Your task to perform on an android device: Clear the shopping cart on walmart. Search for sony triple a on walmart, select the first entry, and add it to the cart. Image 0: 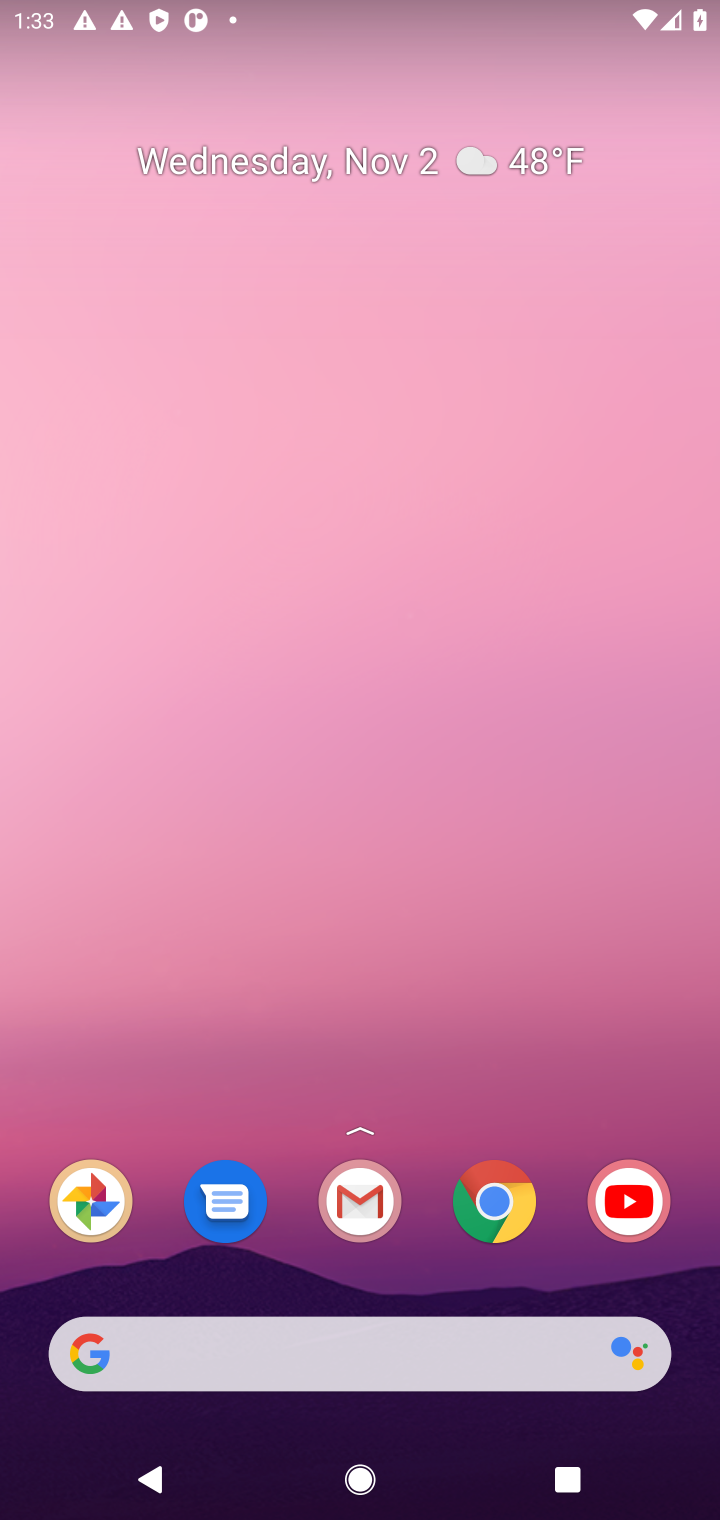
Step 0: click (477, 1201)
Your task to perform on an android device: Clear the shopping cart on walmart. Search for sony triple a on walmart, select the first entry, and add it to the cart. Image 1: 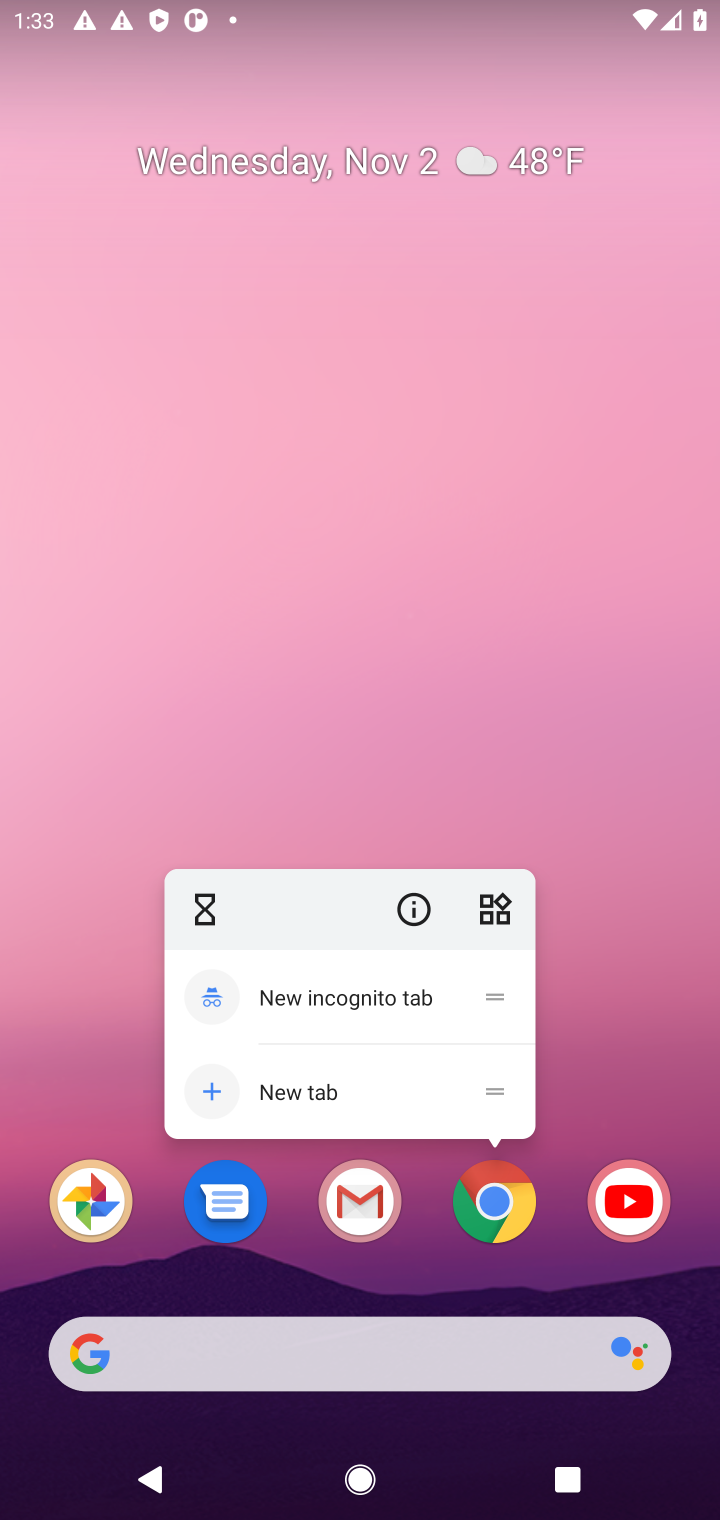
Step 1: click (477, 1201)
Your task to perform on an android device: Clear the shopping cart on walmart. Search for sony triple a on walmart, select the first entry, and add it to the cart. Image 2: 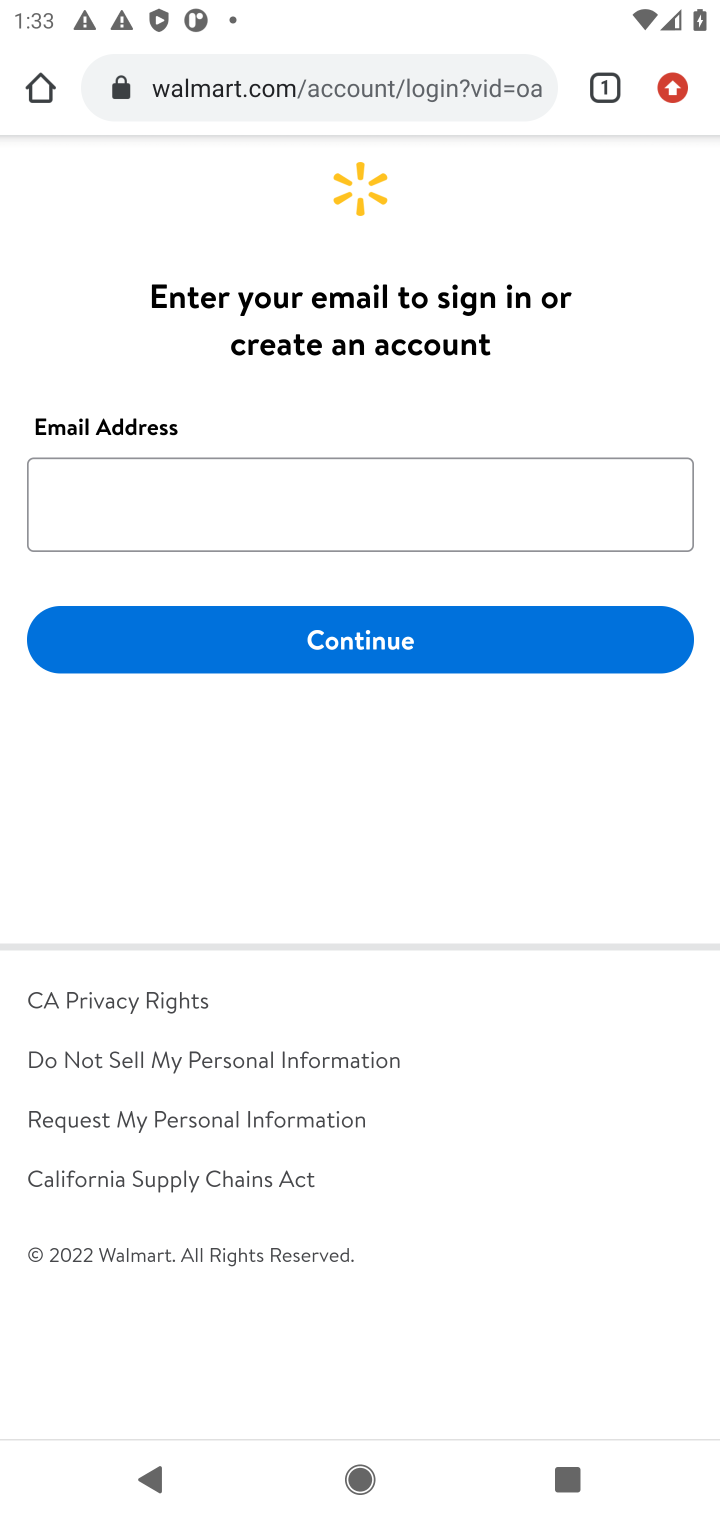
Step 2: press back button
Your task to perform on an android device: Clear the shopping cart on walmart. Search for sony triple a on walmart, select the first entry, and add it to the cart. Image 3: 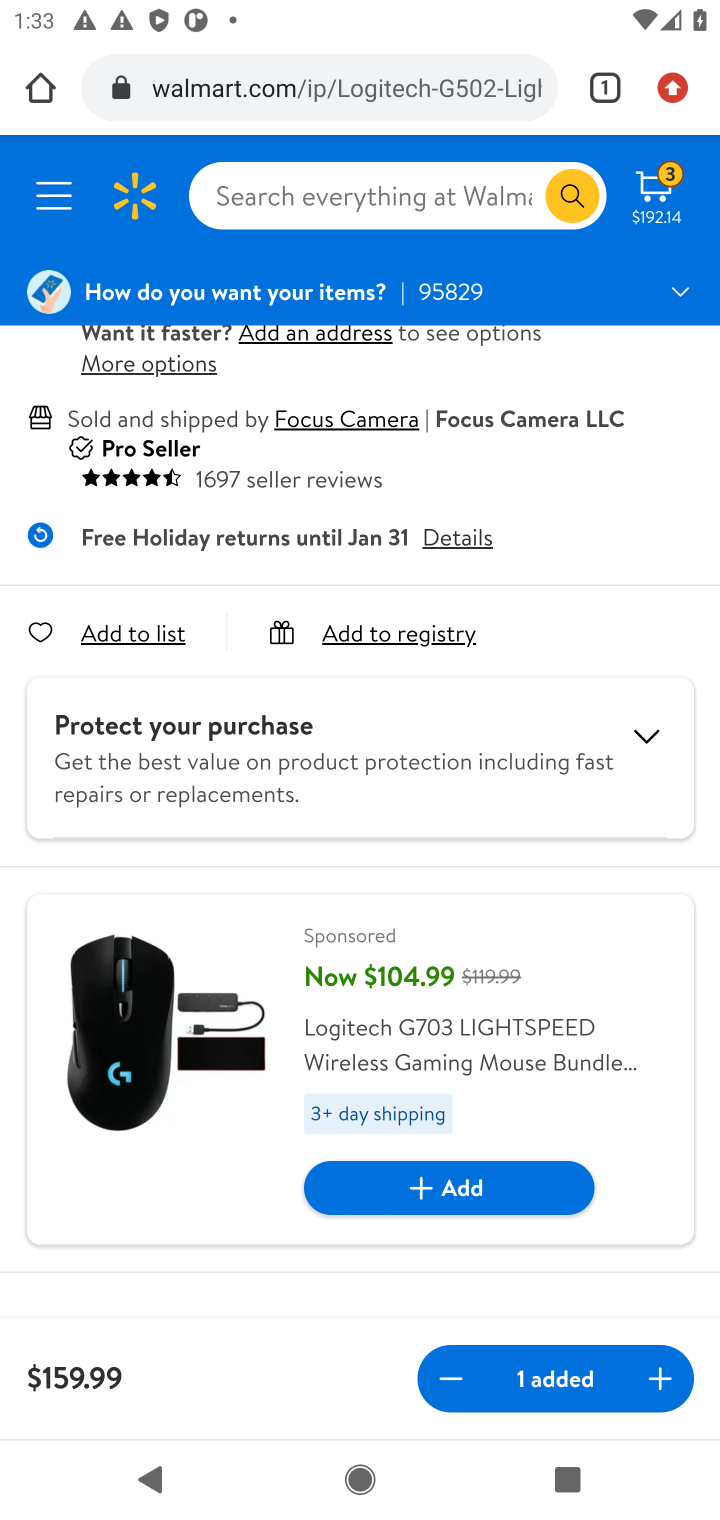
Step 3: click (646, 193)
Your task to perform on an android device: Clear the shopping cart on walmart. Search for sony triple a on walmart, select the first entry, and add it to the cart. Image 4: 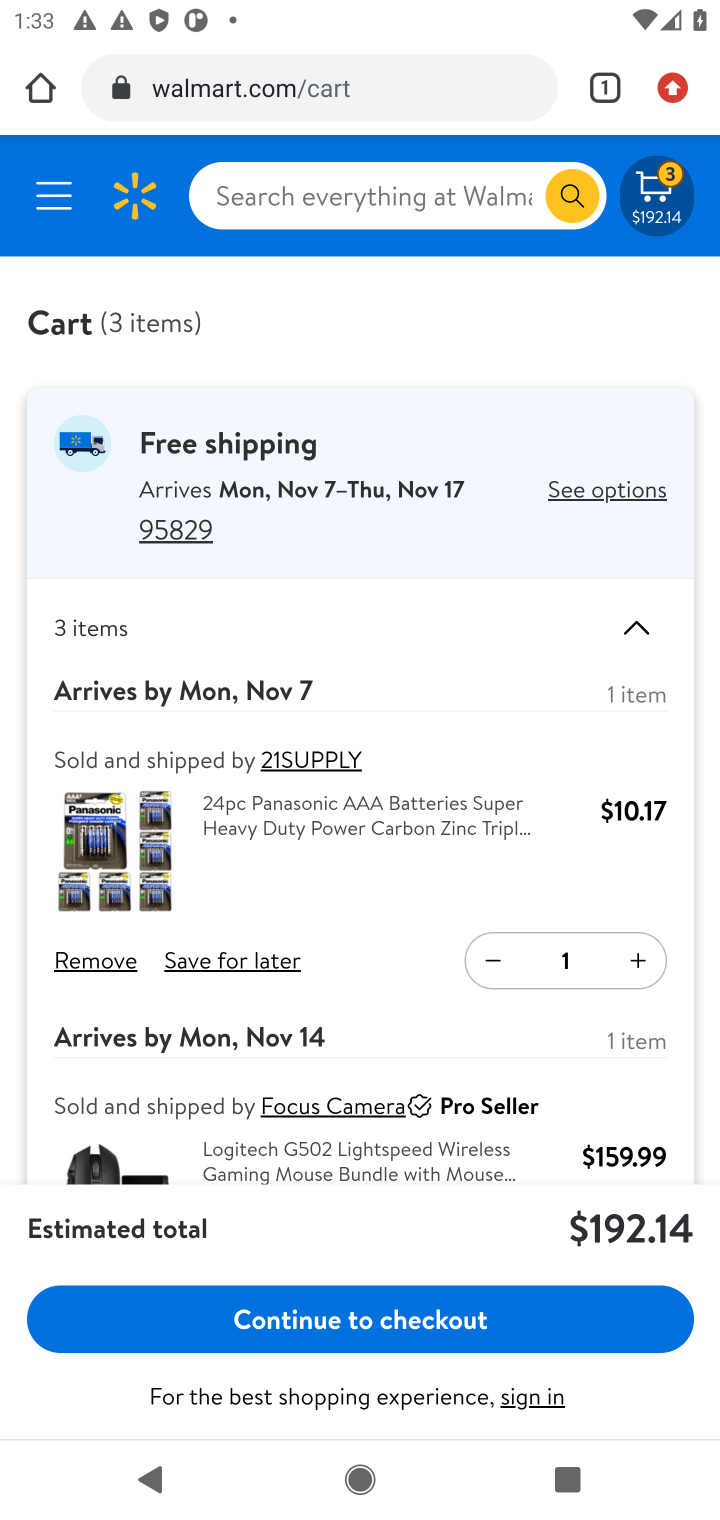
Step 4: click (98, 961)
Your task to perform on an android device: Clear the shopping cart on walmart. Search for sony triple a on walmart, select the first entry, and add it to the cart. Image 5: 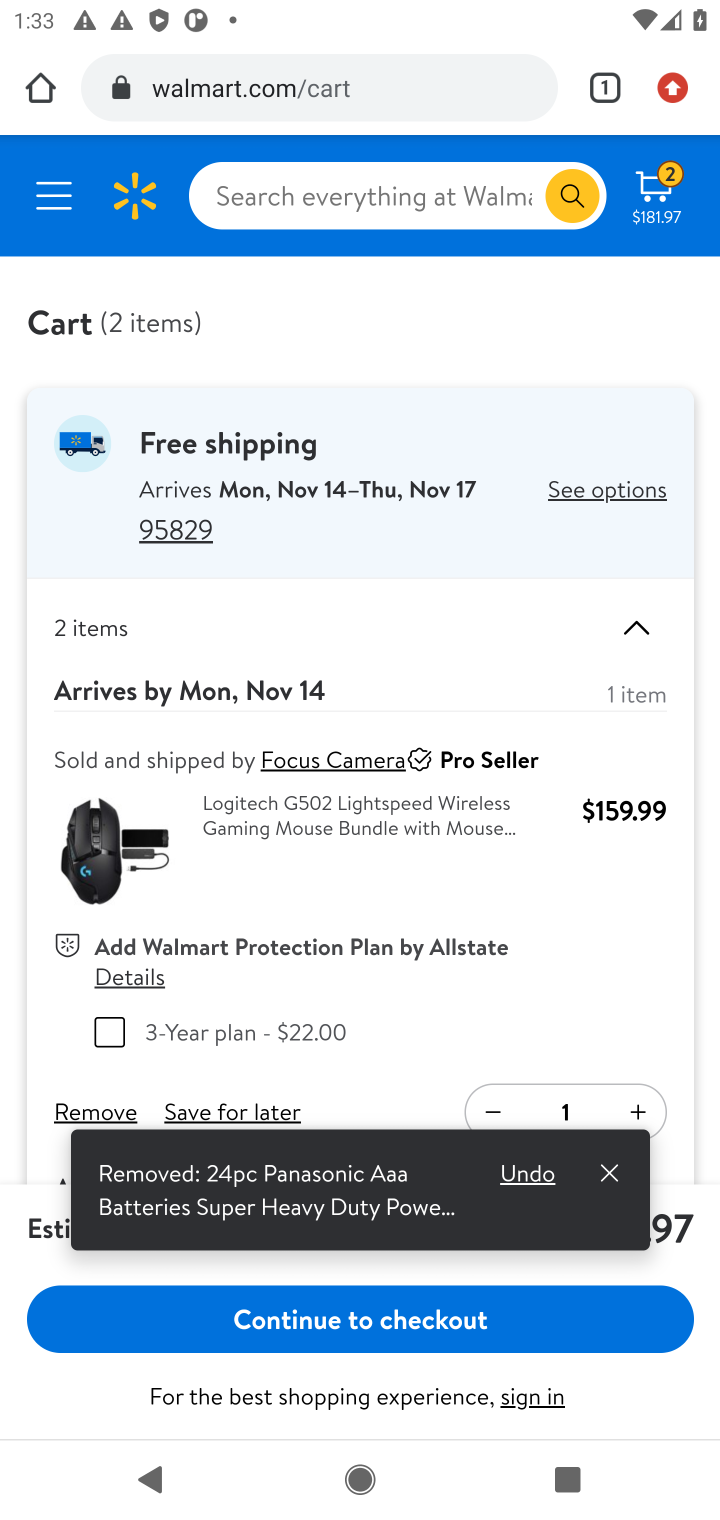
Step 5: click (92, 1113)
Your task to perform on an android device: Clear the shopping cart on walmart. Search for sony triple a on walmart, select the first entry, and add it to the cart. Image 6: 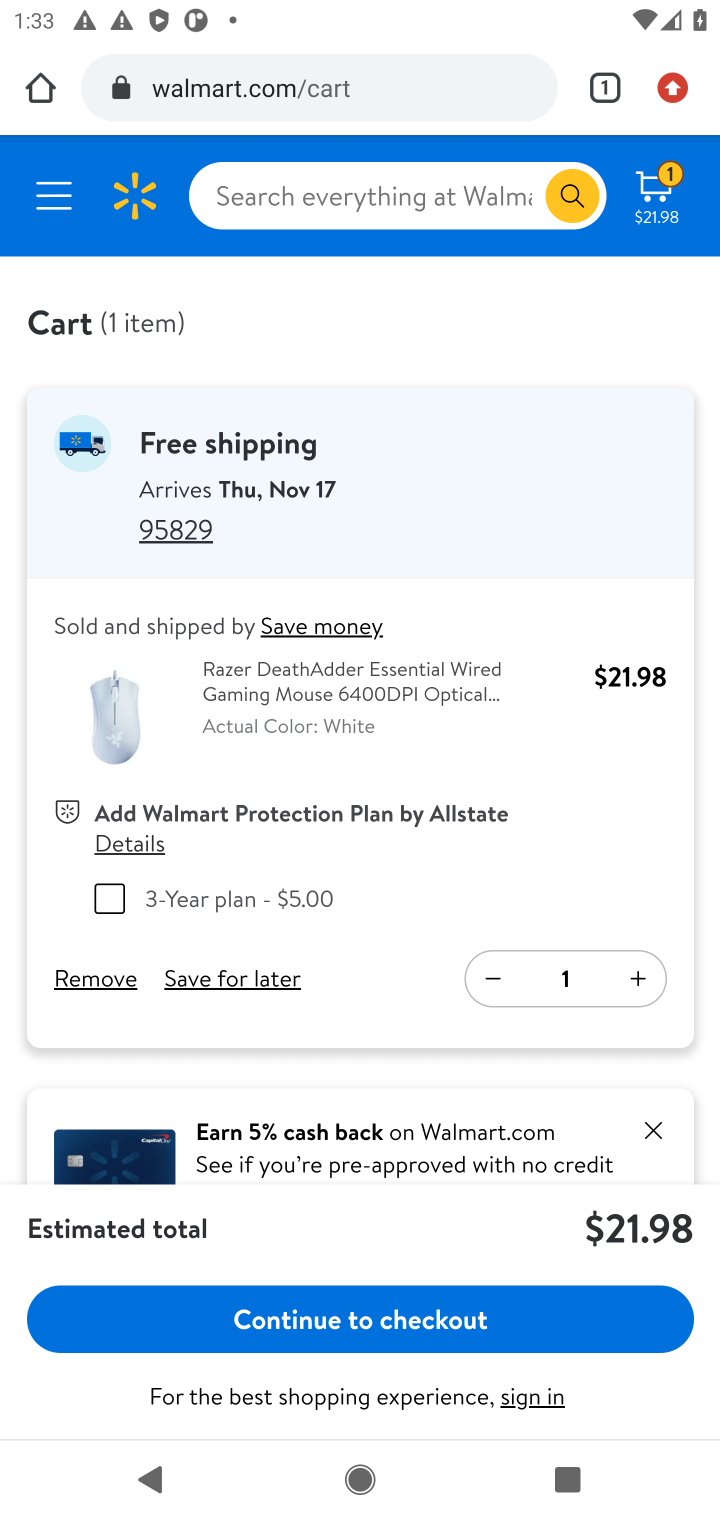
Step 6: click (92, 976)
Your task to perform on an android device: Clear the shopping cart on walmart. Search for sony triple a on walmart, select the first entry, and add it to the cart. Image 7: 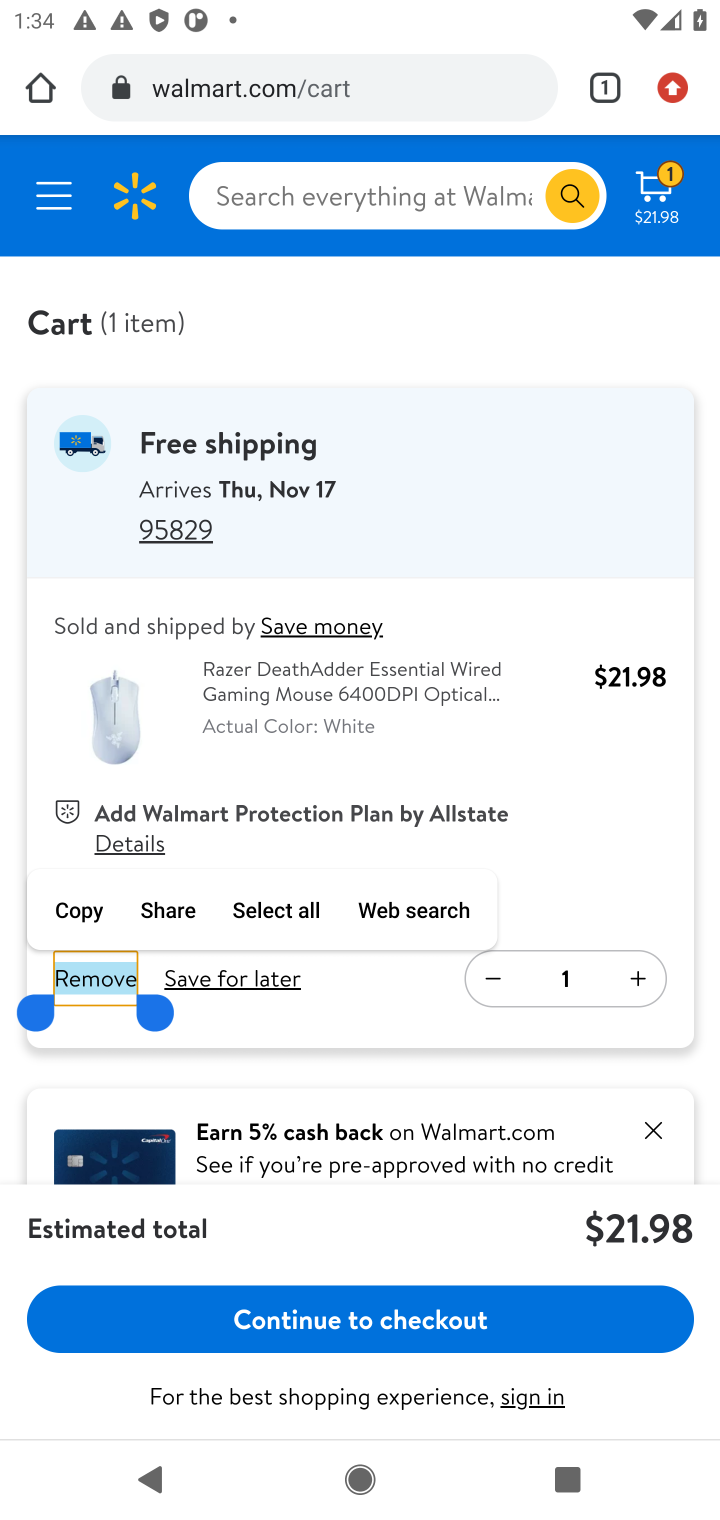
Step 7: click (480, 1052)
Your task to perform on an android device: Clear the shopping cart on walmart. Search for sony triple a on walmart, select the first entry, and add it to the cart. Image 8: 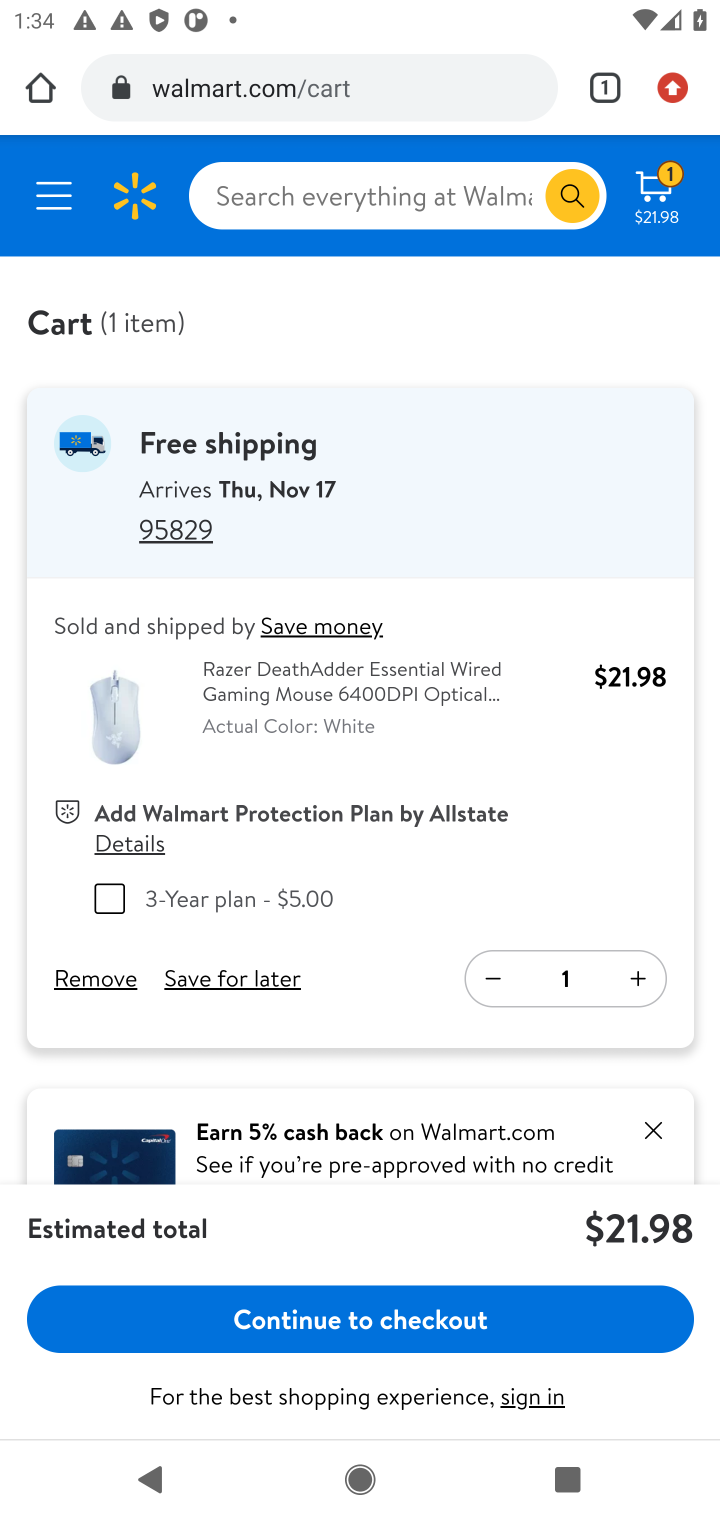
Step 8: click (646, 1124)
Your task to perform on an android device: Clear the shopping cart on walmart. Search for sony triple a on walmart, select the first entry, and add it to the cart. Image 9: 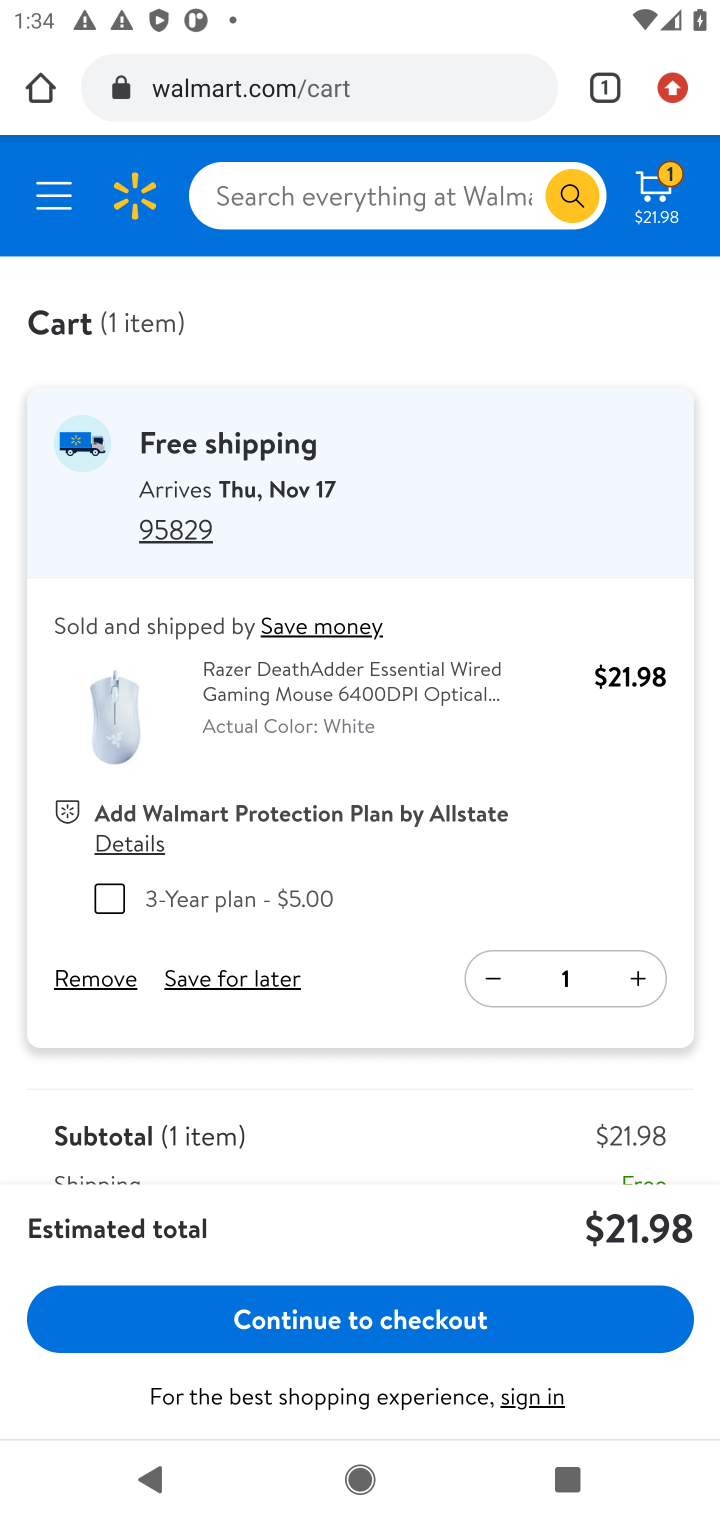
Step 9: click (73, 980)
Your task to perform on an android device: Clear the shopping cart on walmart. Search for sony triple a on walmart, select the first entry, and add it to the cart. Image 10: 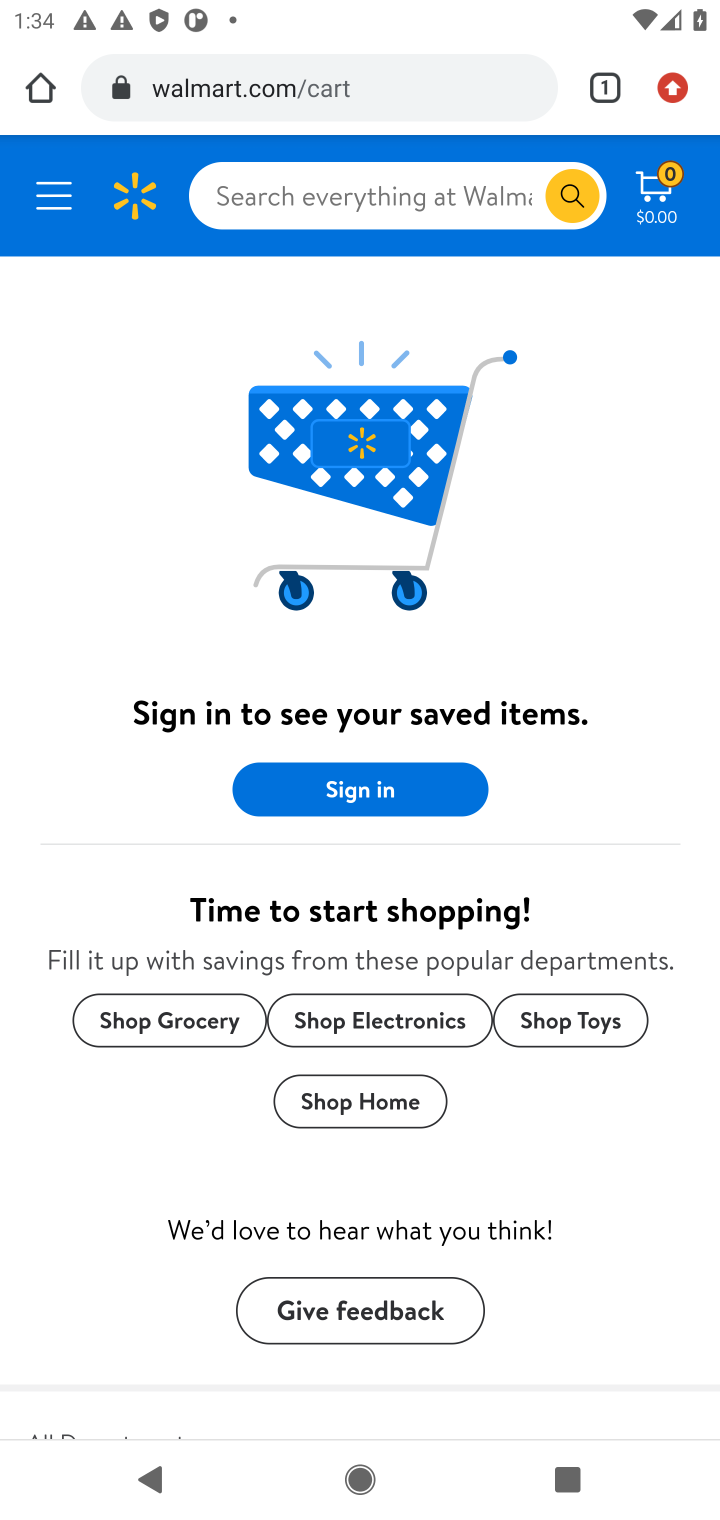
Step 10: click (333, 211)
Your task to perform on an android device: Clear the shopping cart on walmart. Search for sony triple a on walmart, select the first entry, and add it to the cart. Image 11: 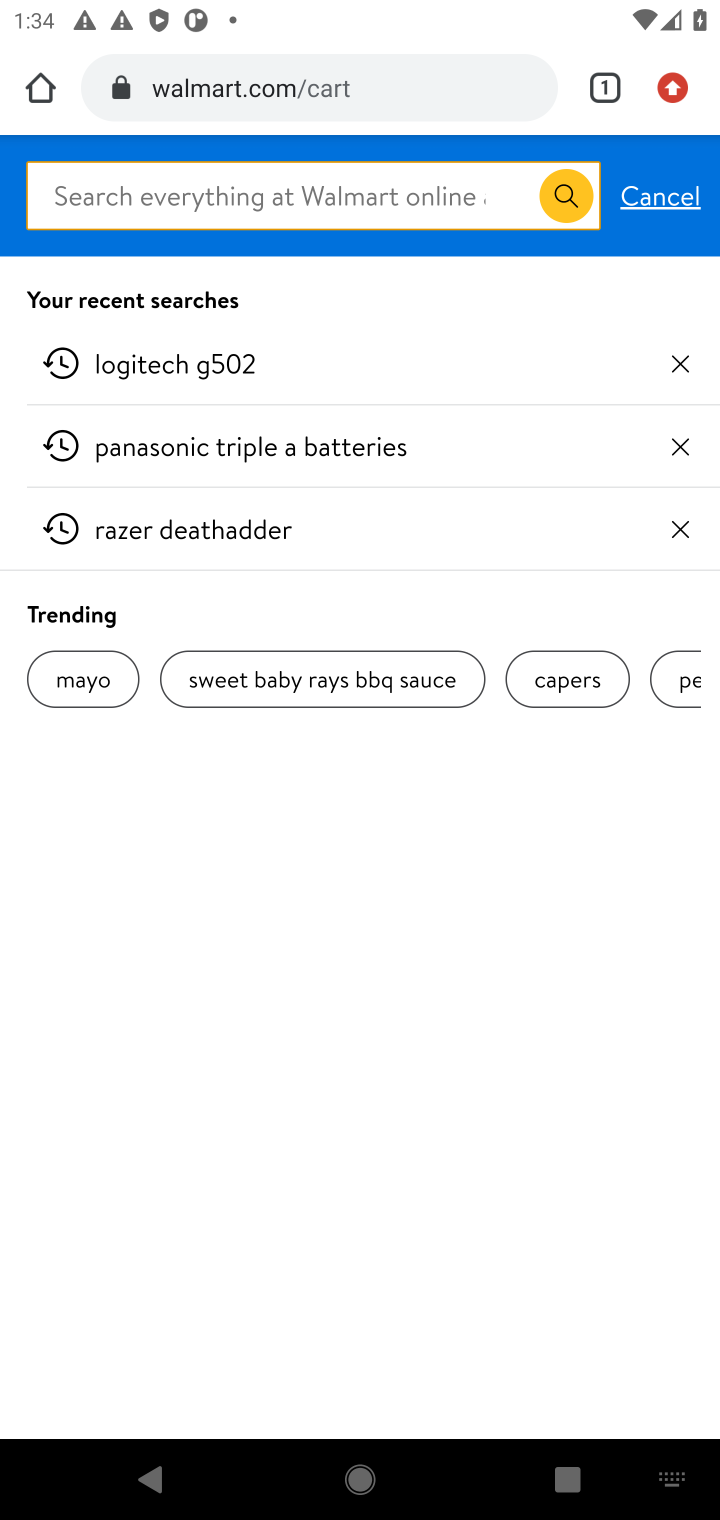
Step 11: type "sony triple a"
Your task to perform on an android device: Clear the shopping cart on walmart. Search for sony triple a on walmart, select the first entry, and add it to the cart. Image 12: 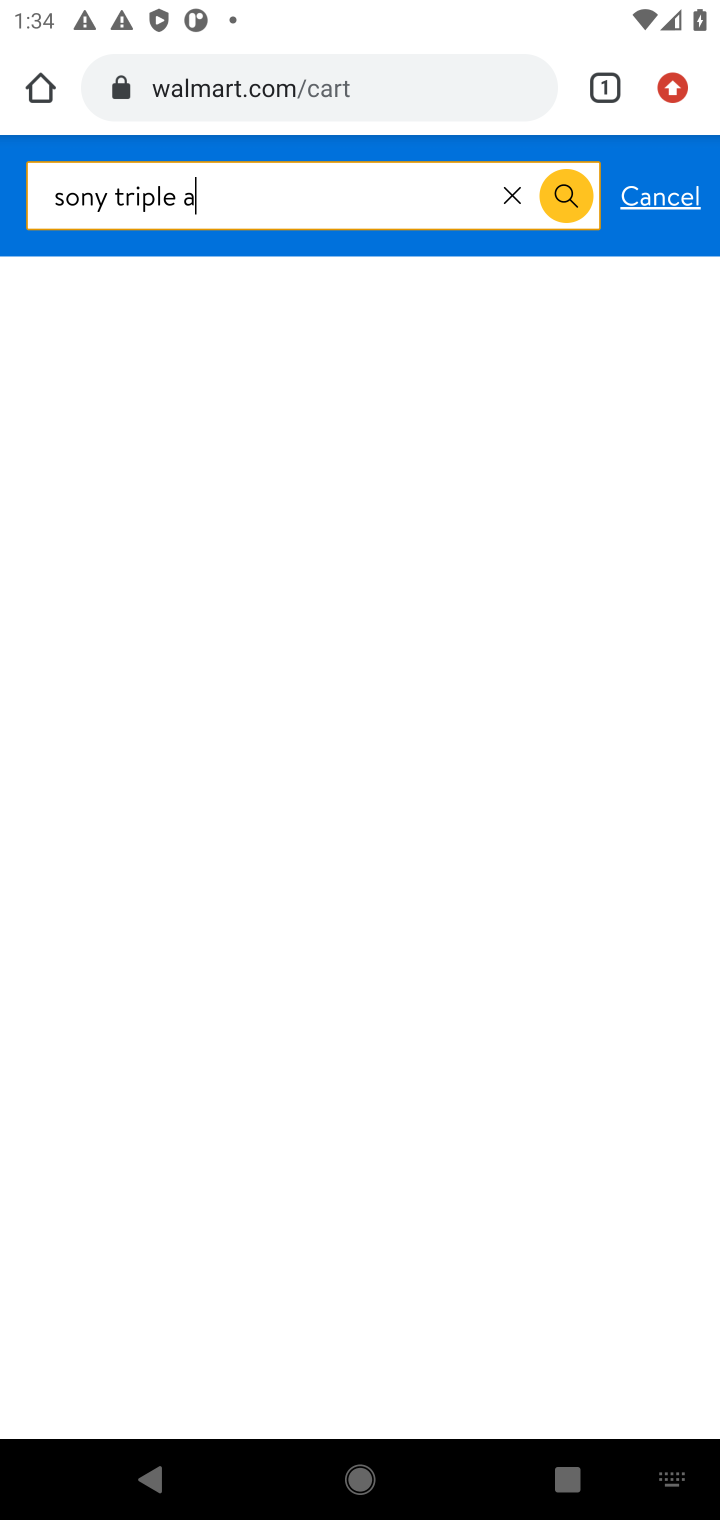
Step 12: click (336, 175)
Your task to perform on an android device: Clear the shopping cart on walmart. Search for sony triple a on walmart, select the first entry, and add it to the cart. Image 13: 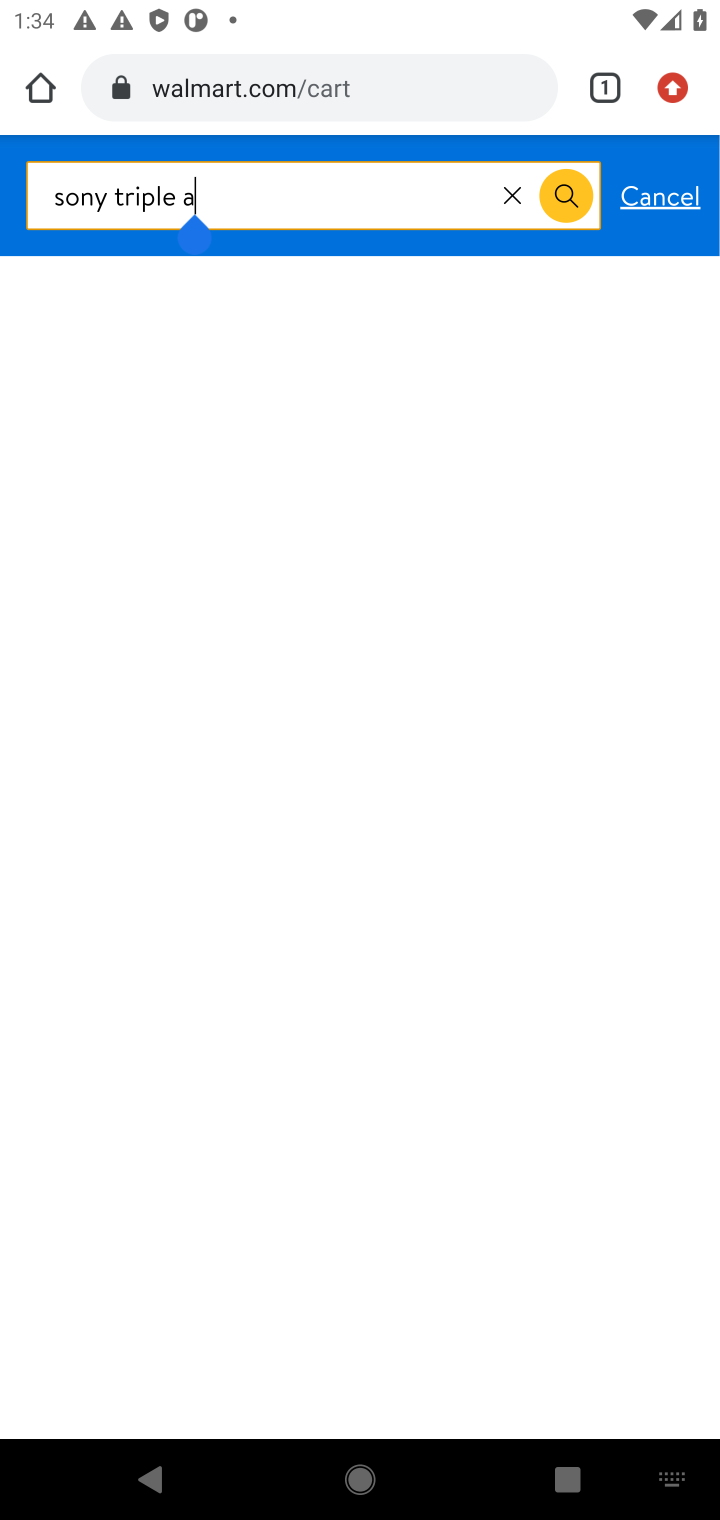
Step 13: click (521, 398)
Your task to perform on an android device: Clear the shopping cart on walmart. Search for sony triple a on walmart, select the first entry, and add it to the cart. Image 14: 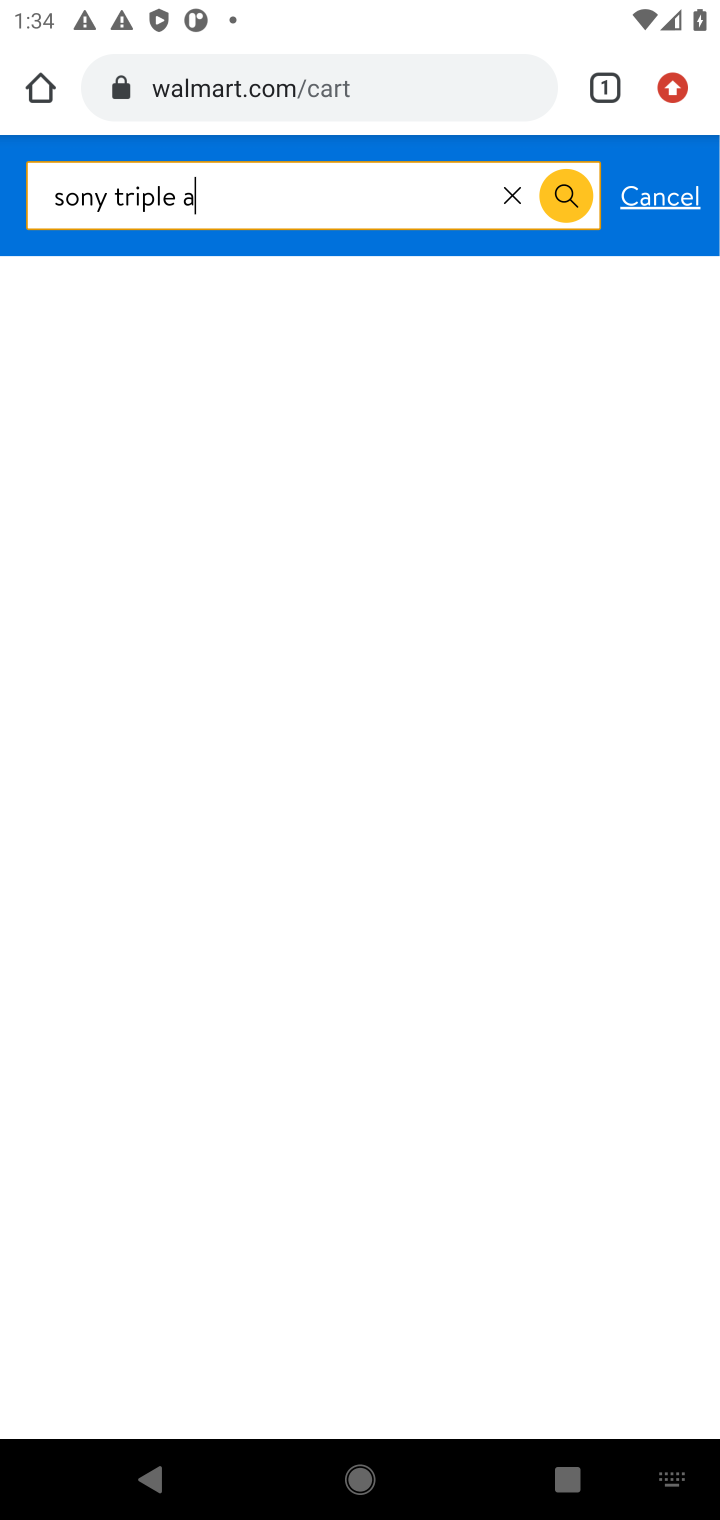
Step 14: click (504, 193)
Your task to perform on an android device: Clear the shopping cart on walmart. Search for sony triple a on walmart, select the first entry, and add it to the cart. Image 15: 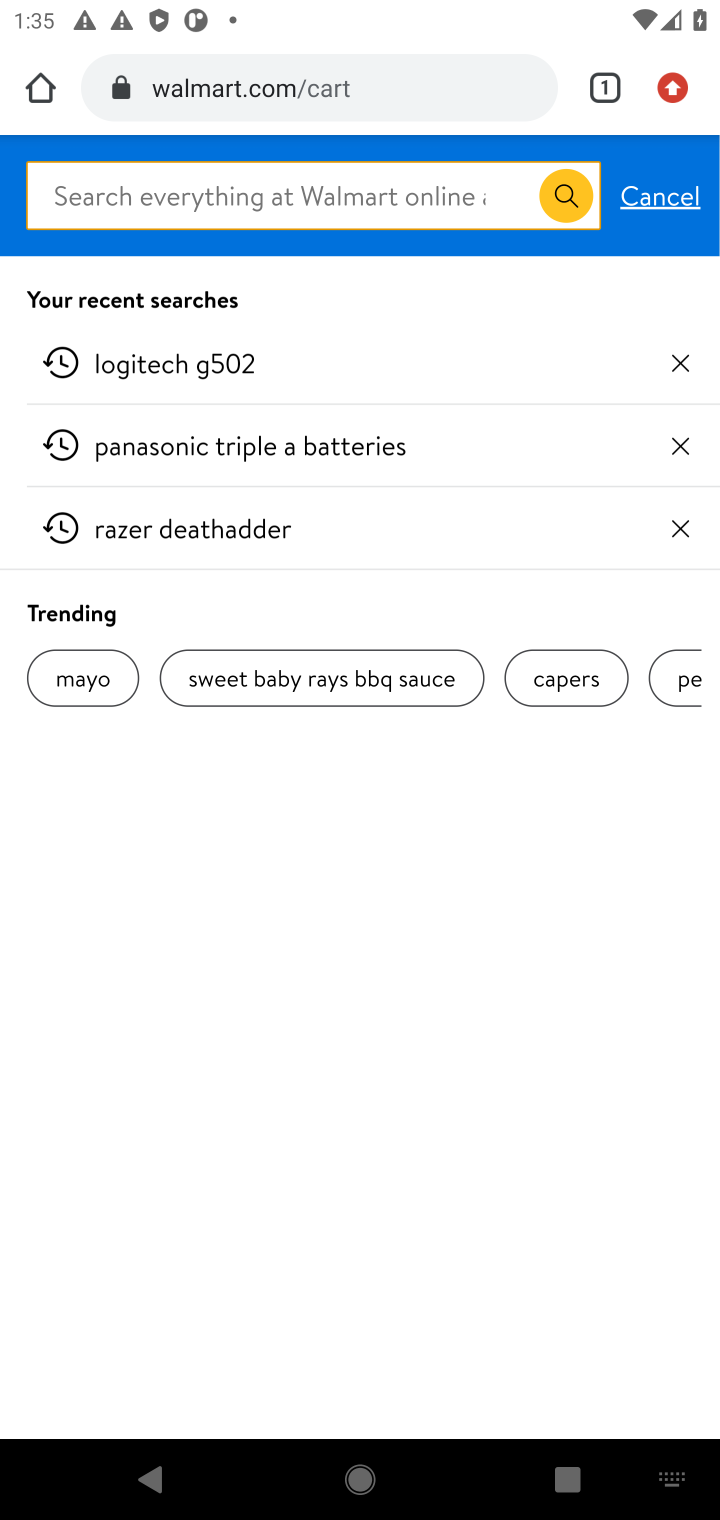
Step 15: type "sony triple a"
Your task to perform on an android device: Clear the shopping cart on walmart. Search for sony triple a on walmart, select the first entry, and add it to the cart. Image 16: 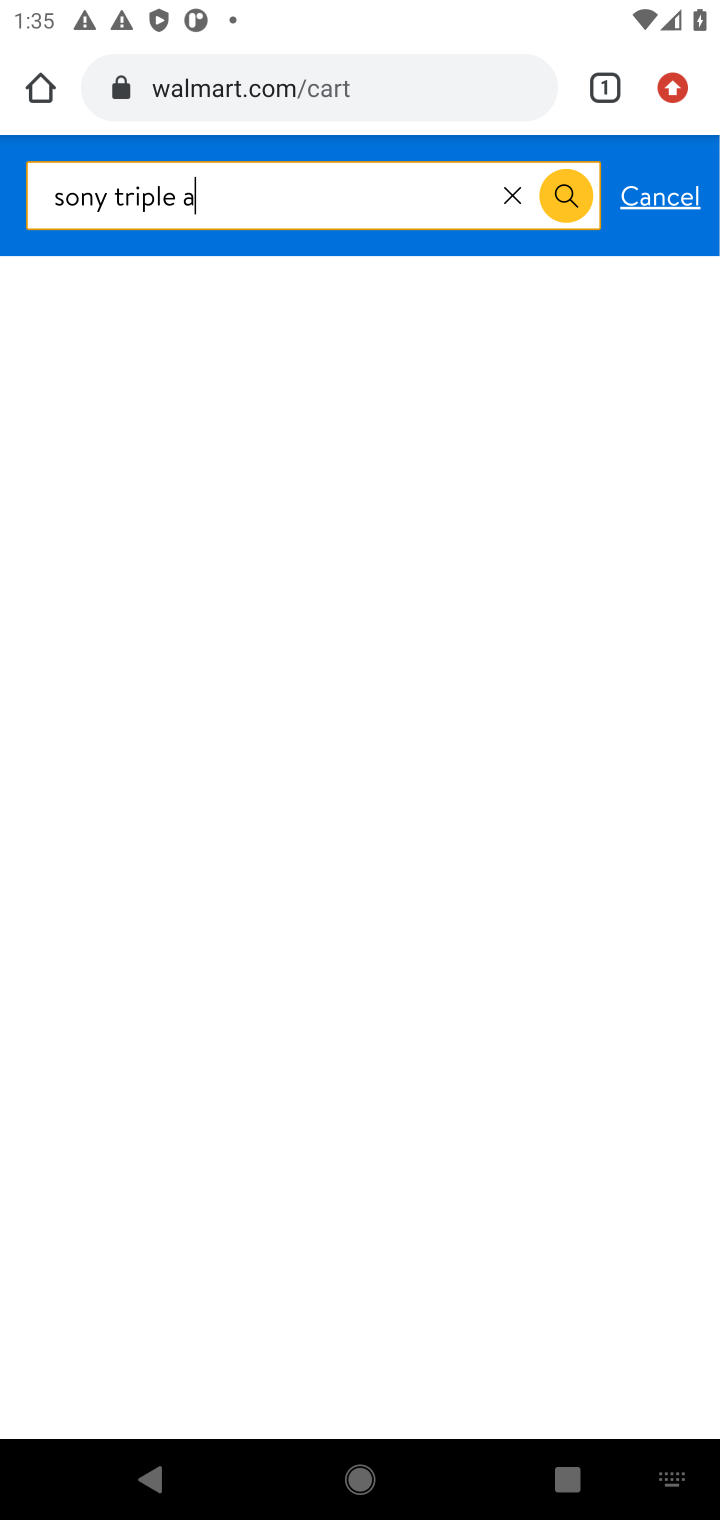
Step 16: press enter
Your task to perform on an android device: Clear the shopping cart on walmart. Search for sony triple a on walmart, select the first entry, and add it to the cart. Image 17: 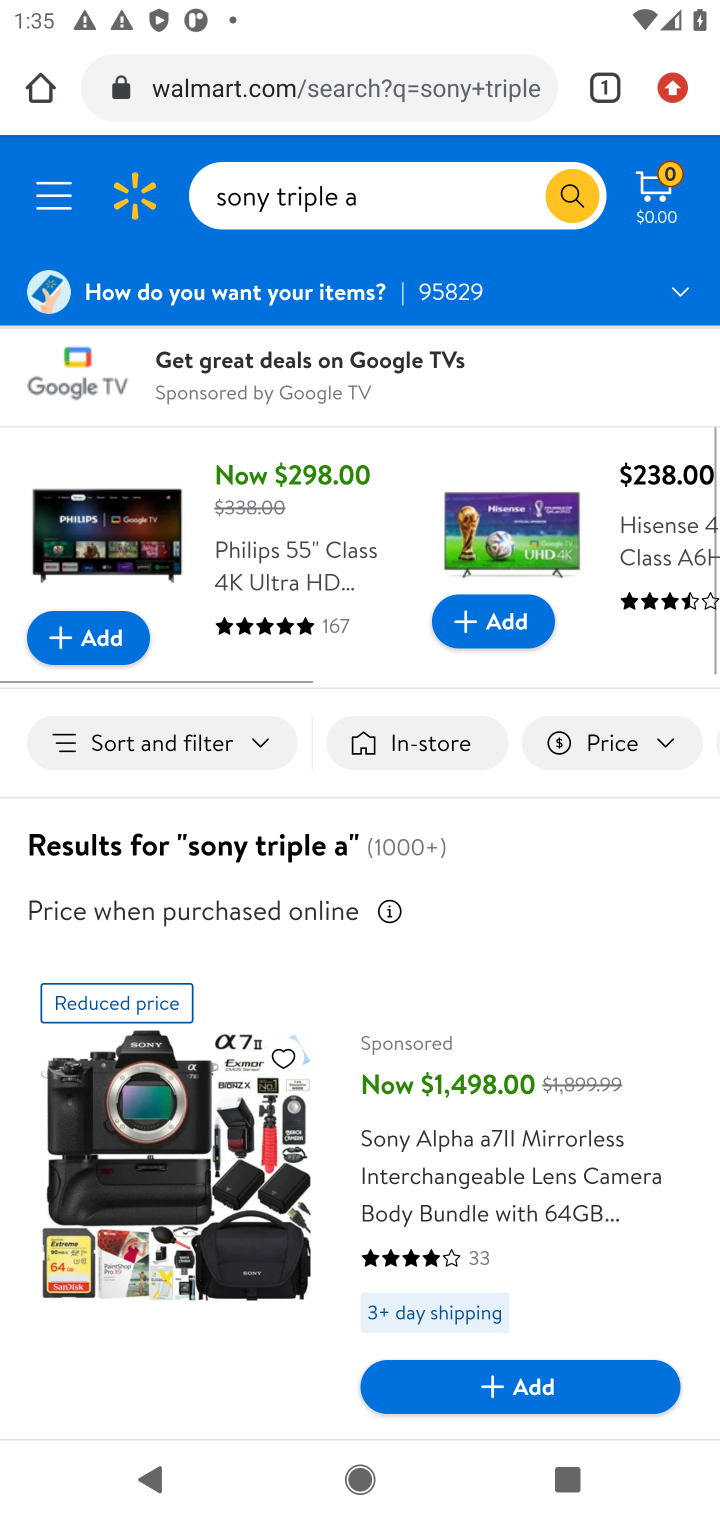
Step 17: click (386, 192)
Your task to perform on an android device: Clear the shopping cart on walmart. Search for sony triple a on walmart, select the first entry, and add it to the cart. Image 18: 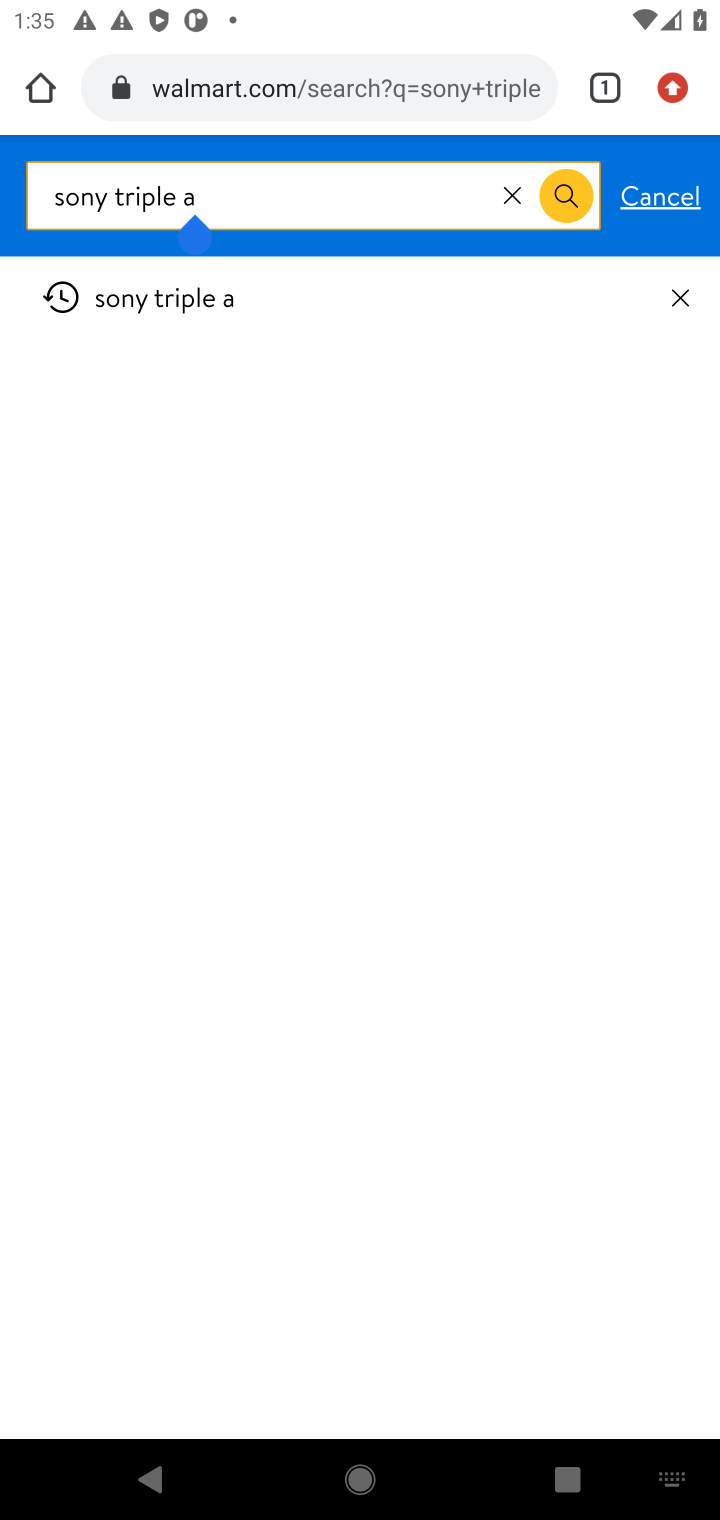
Step 18: click (148, 288)
Your task to perform on an android device: Clear the shopping cart on walmart. Search for sony triple a on walmart, select the first entry, and add it to the cart. Image 19: 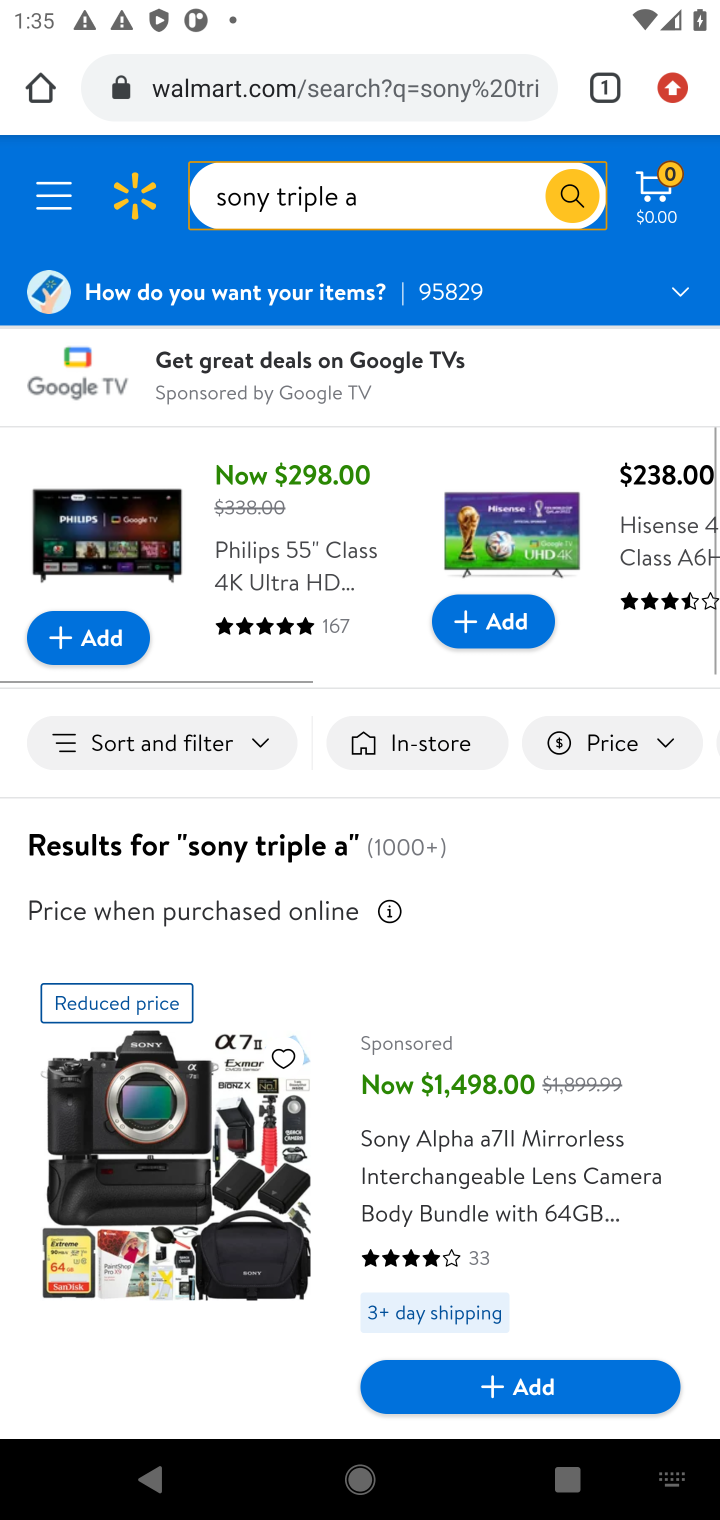
Step 19: drag from (500, 1226) to (501, 646)
Your task to perform on an android device: Clear the shopping cart on walmart. Search for sony triple a on walmart, select the first entry, and add it to the cart. Image 20: 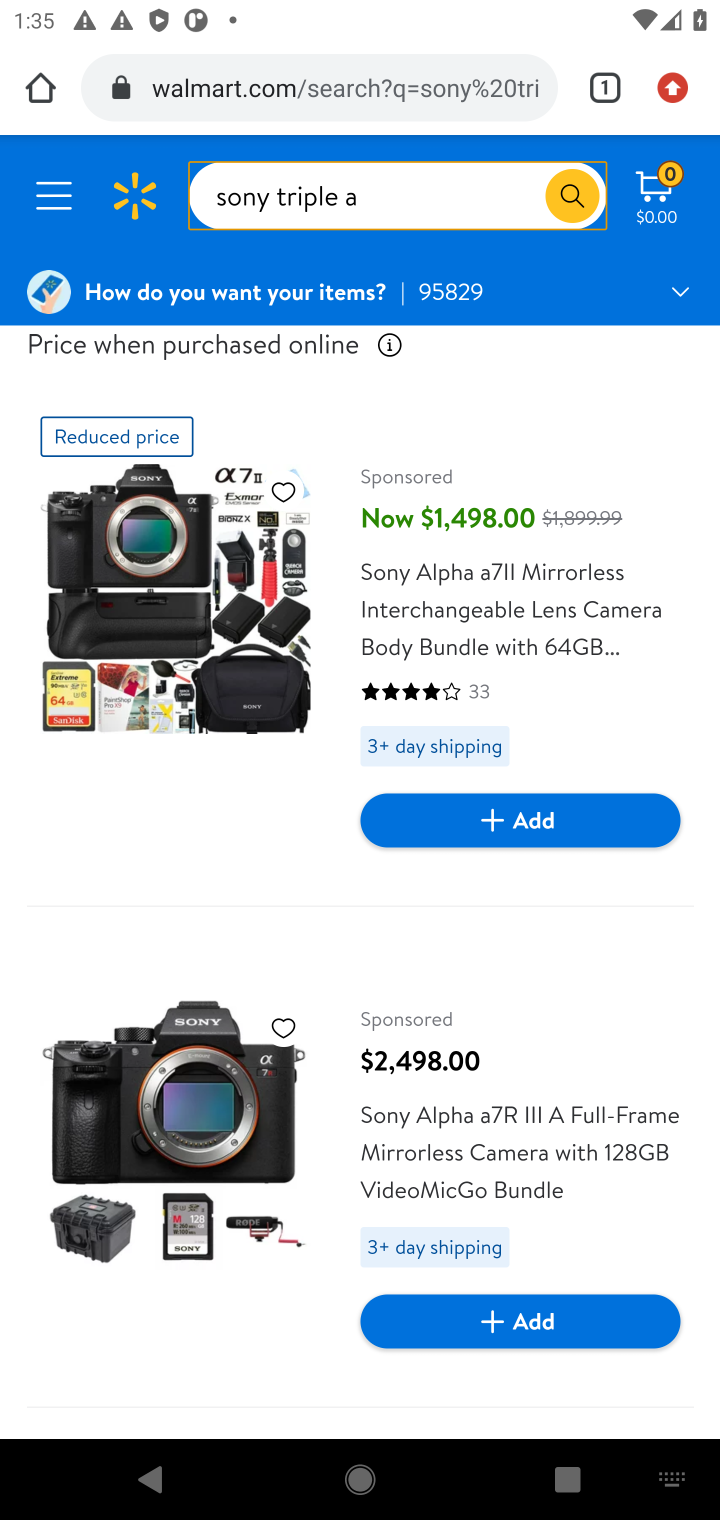
Step 20: click (191, 1137)
Your task to perform on an android device: Clear the shopping cart on walmart. Search for sony triple a on walmart, select the first entry, and add it to the cart. Image 21: 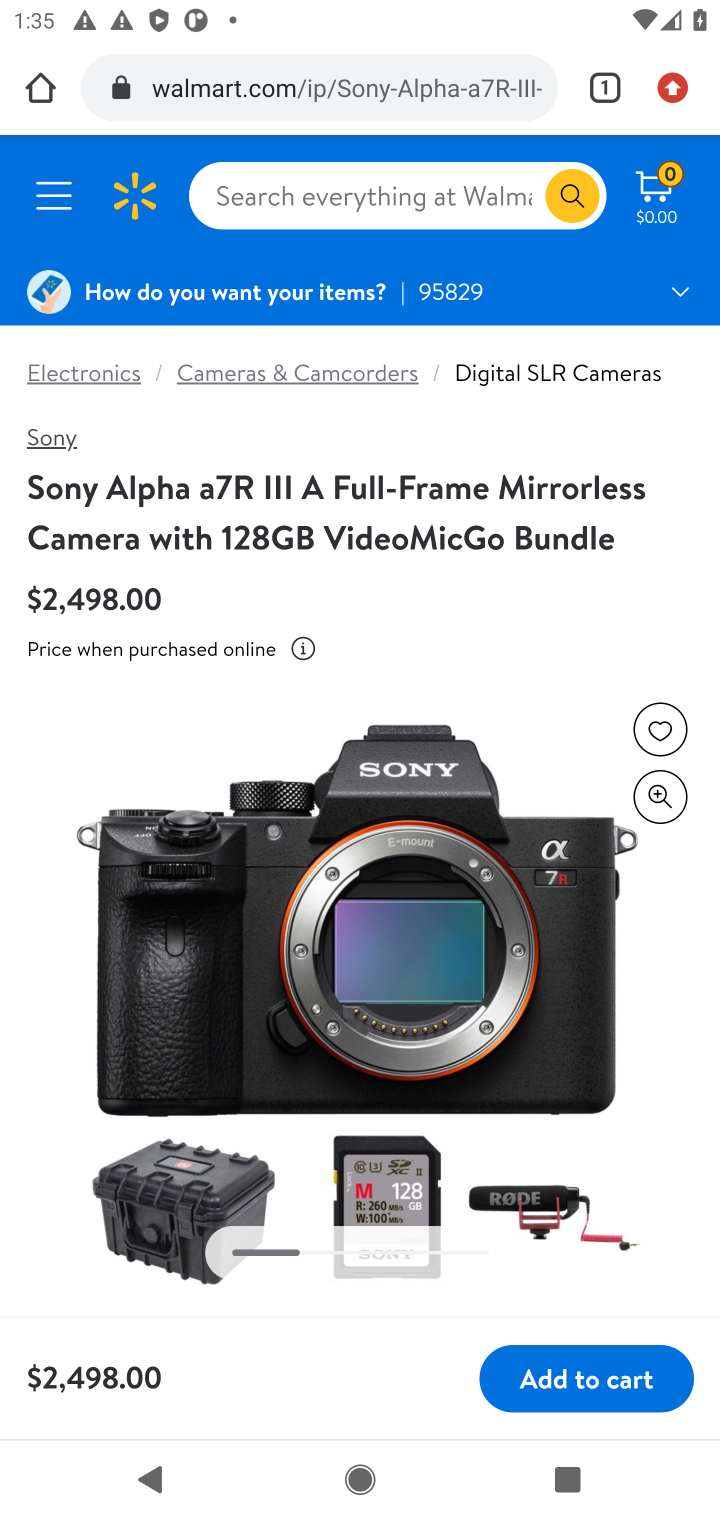
Step 21: click (549, 1378)
Your task to perform on an android device: Clear the shopping cart on walmart. Search for sony triple a on walmart, select the first entry, and add it to the cart. Image 22: 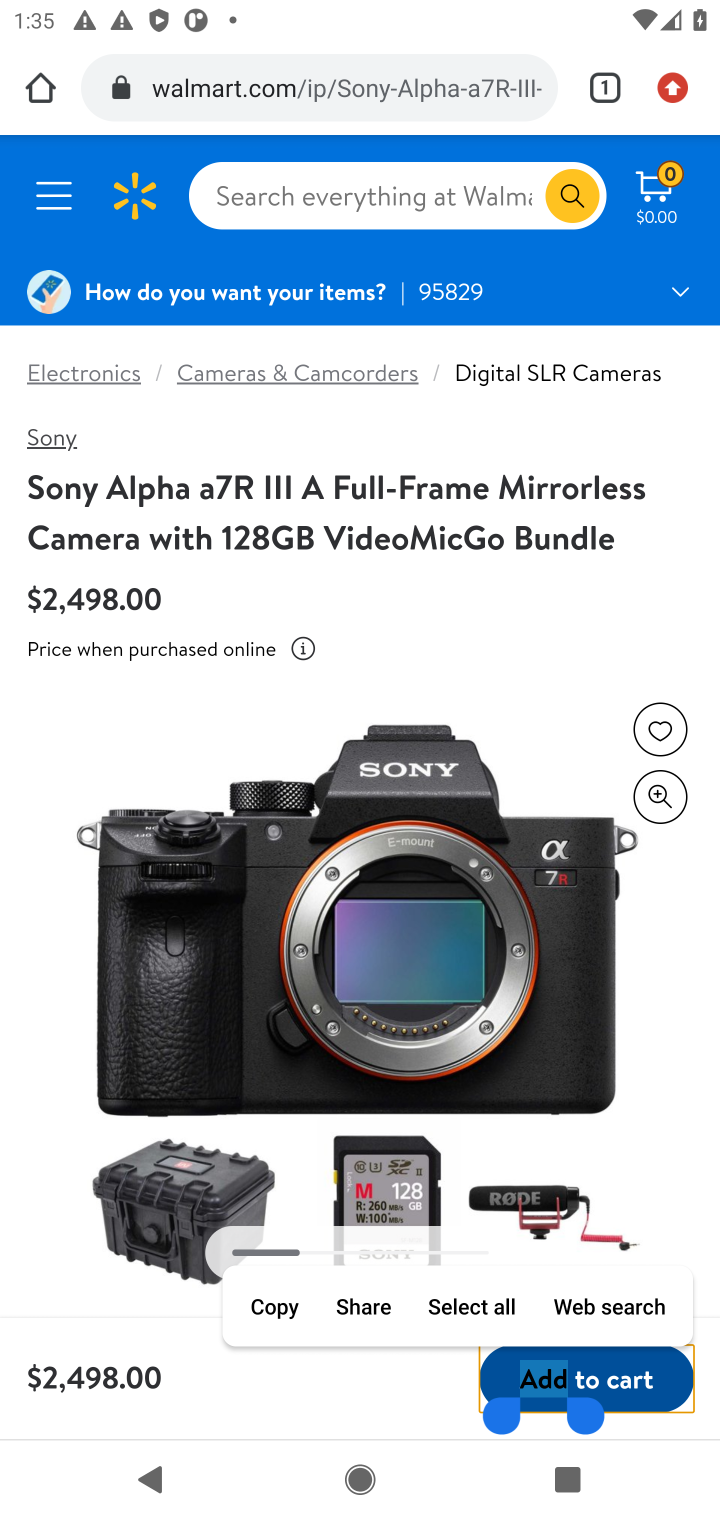
Step 22: click (585, 618)
Your task to perform on an android device: Clear the shopping cart on walmart. Search for sony triple a on walmart, select the first entry, and add it to the cart. Image 23: 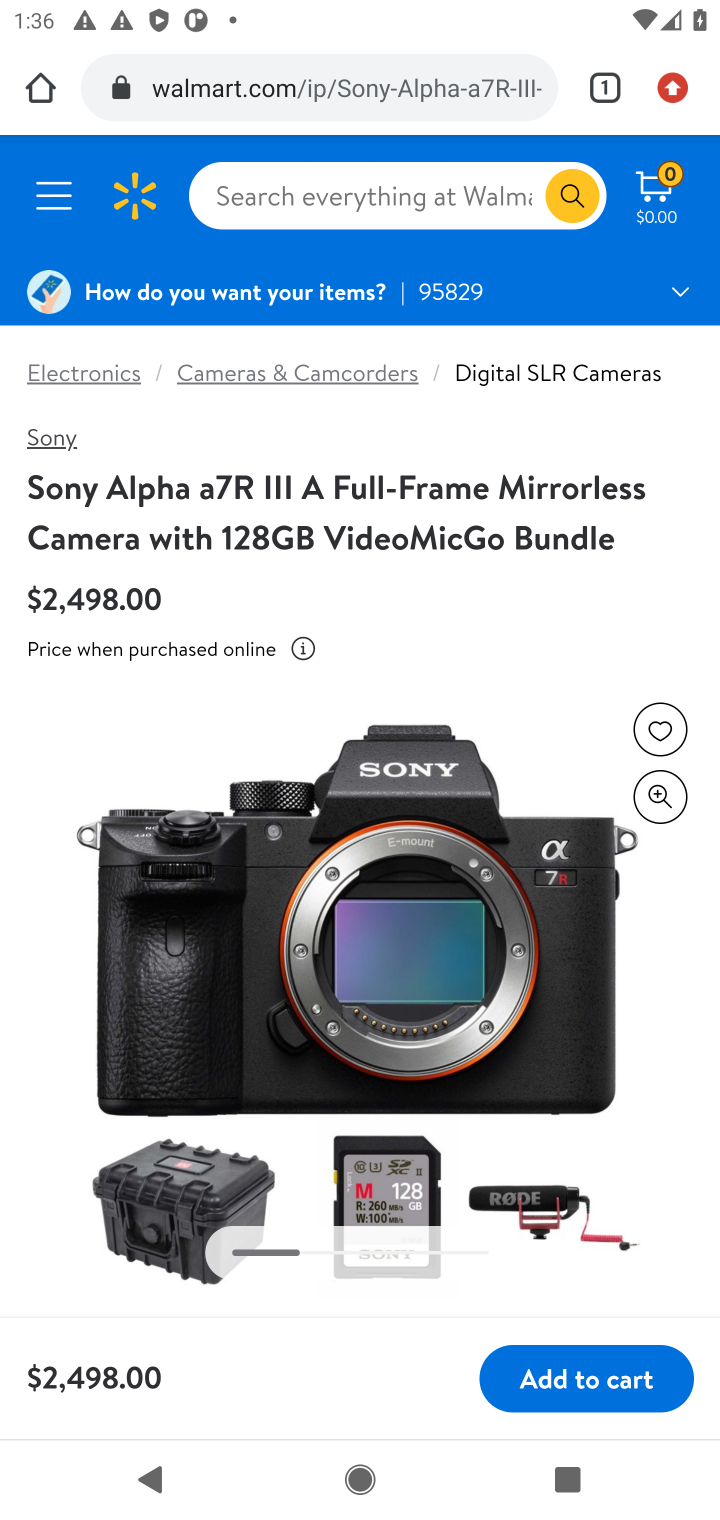
Step 23: click (623, 1382)
Your task to perform on an android device: Clear the shopping cart on walmart. Search for sony triple a on walmart, select the first entry, and add it to the cart. Image 24: 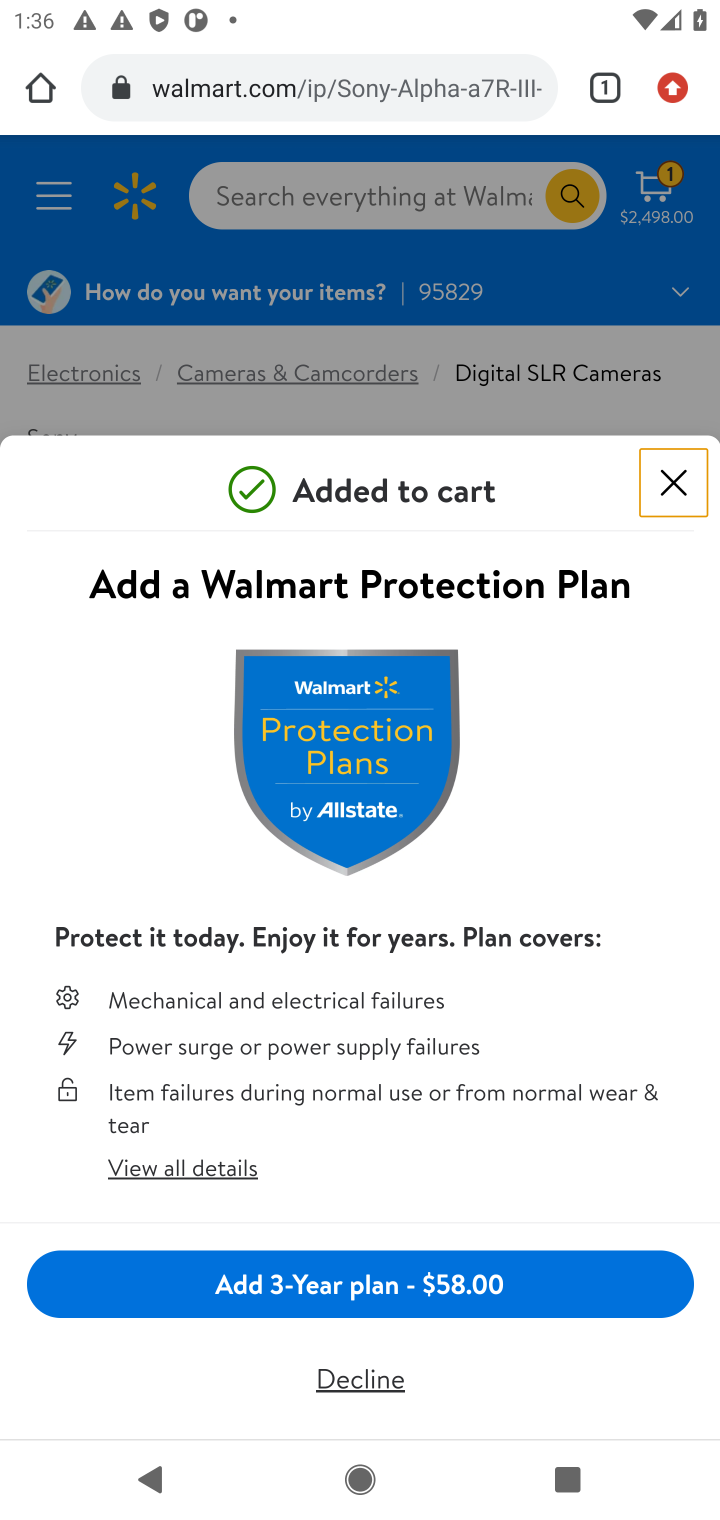
Step 24: task complete